Your task to perform on an android device: Go to accessibility settings Image 0: 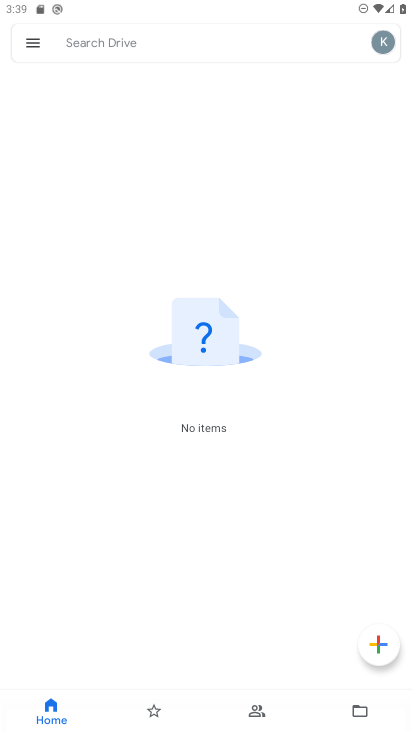
Step 0: press home button
Your task to perform on an android device: Go to accessibility settings Image 1: 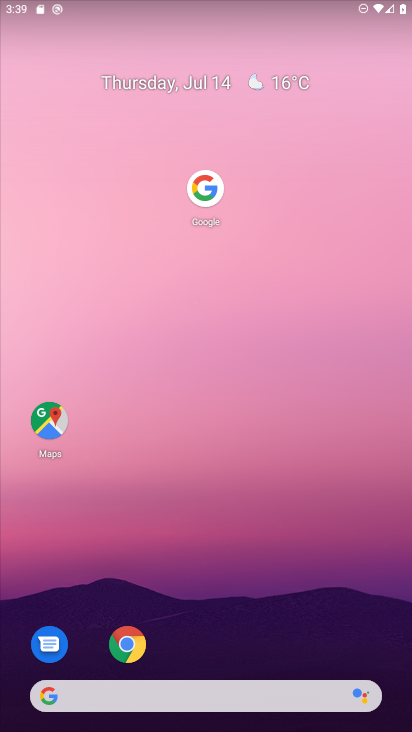
Step 1: drag from (213, 658) to (204, 228)
Your task to perform on an android device: Go to accessibility settings Image 2: 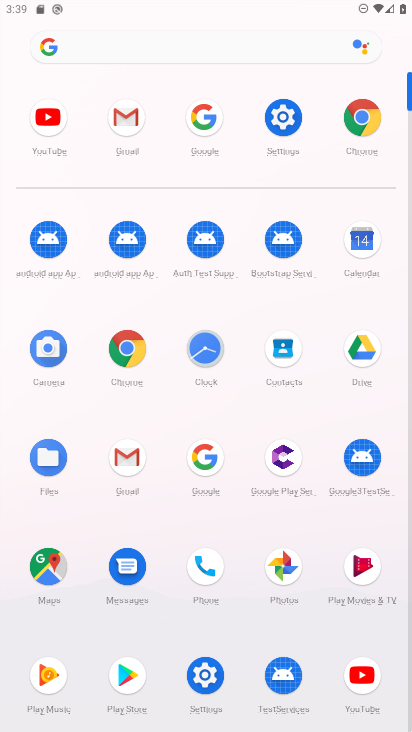
Step 2: click (278, 139)
Your task to perform on an android device: Go to accessibility settings Image 3: 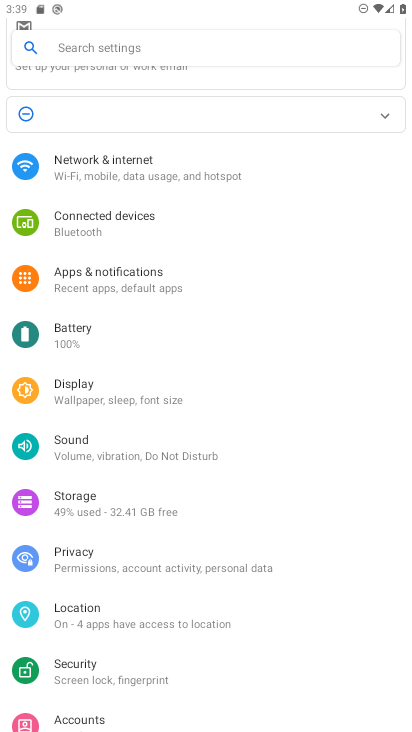
Step 3: drag from (155, 554) to (162, 307)
Your task to perform on an android device: Go to accessibility settings Image 4: 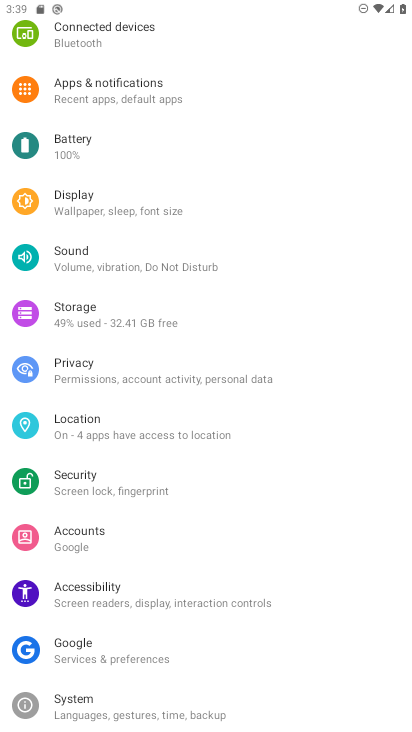
Step 4: click (124, 604)
Your task to perform on an android device: Go to accessibility settings Image 5: 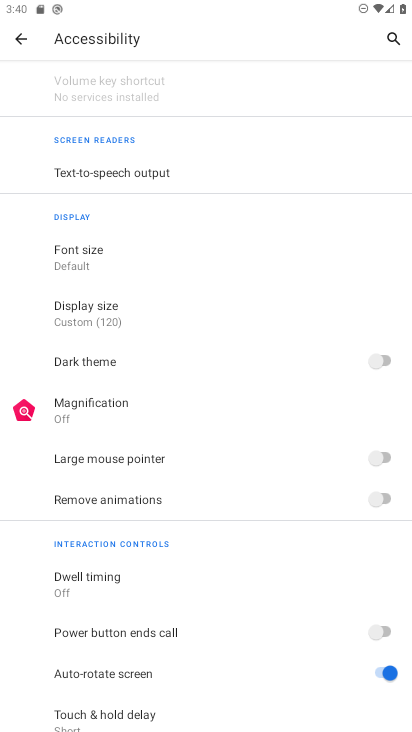
Step 5: task complete